Your task to perform on an android device: Go to Android settings Image 0: 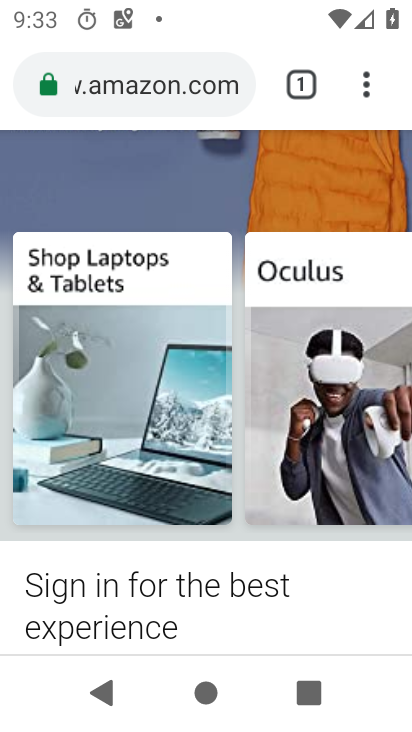
Step 0: drag from (206, 606) to (158, 0)
Your task to perform on an android device: Go to Android settings Image 1: 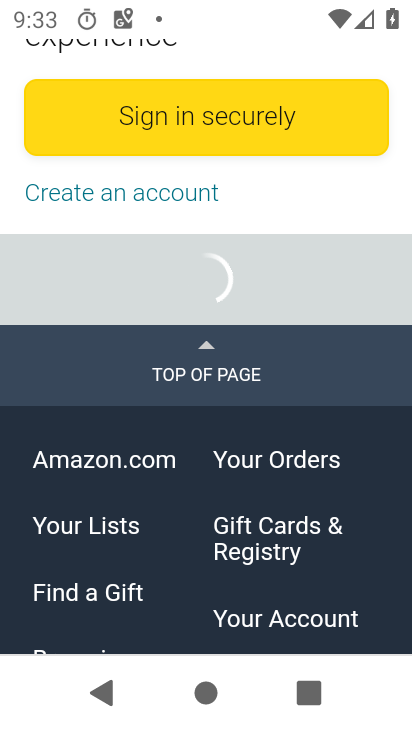
Step 1: press home button
Your task to perform on an android device: Go to Android settings Image 2: 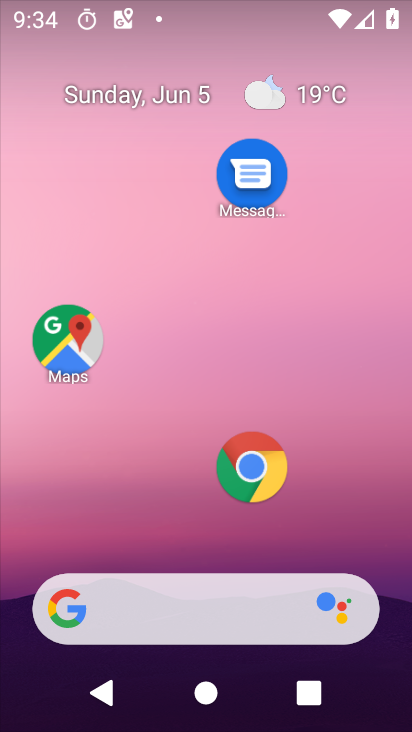
Step 2: drag from (198, 569) to (227, 390)
Your task to perform on an android device: Go to Android settings Image 3: 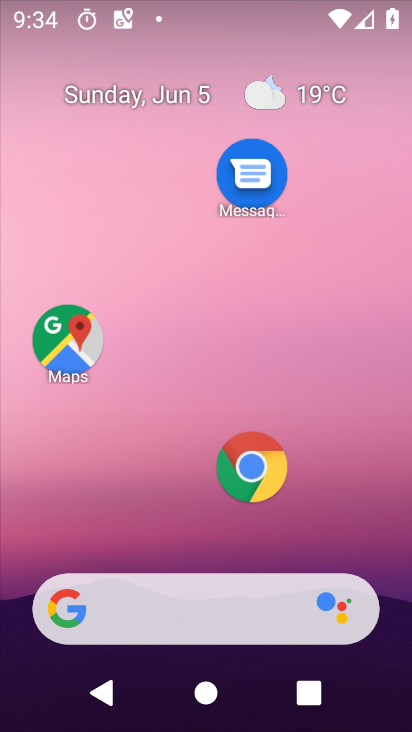
Step 3: drag from (194, 520) to (224, 85)
Your task to perform on an android device: Go to Android settings Image 4: 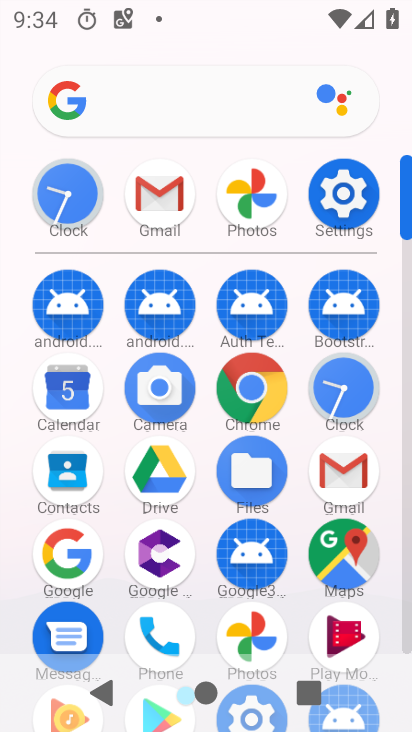
Step 4: click (356, 183)
Your task to perform on an android device: Go to Android settings Image 5: 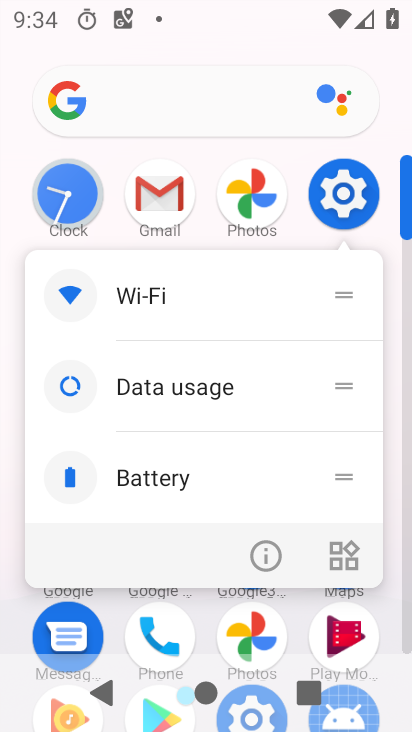
Step 5: click (277, 545)
Your task to perform on an android device: Go to Android settings Image 6: 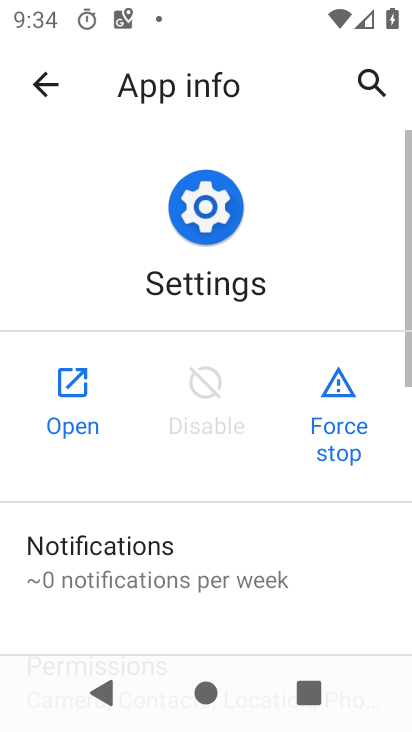
Step 6: click (90, 377)
Your task to perform on an android device: Go to Android settings Image 7: 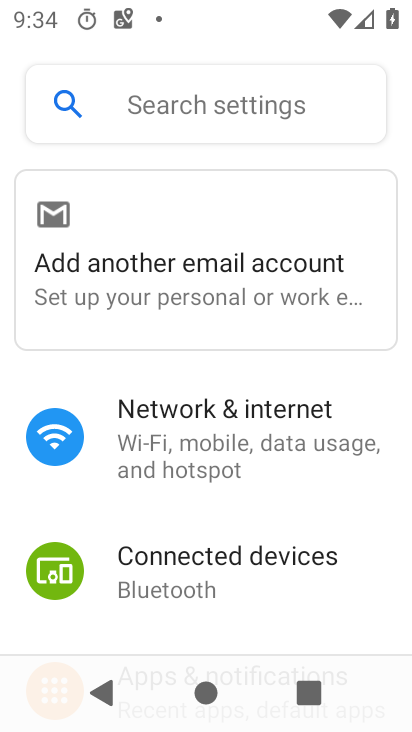
Step 7: drag from (193, 598) to (240, 94)
Your task to perform on an android device: Go to Android settings Image 8: 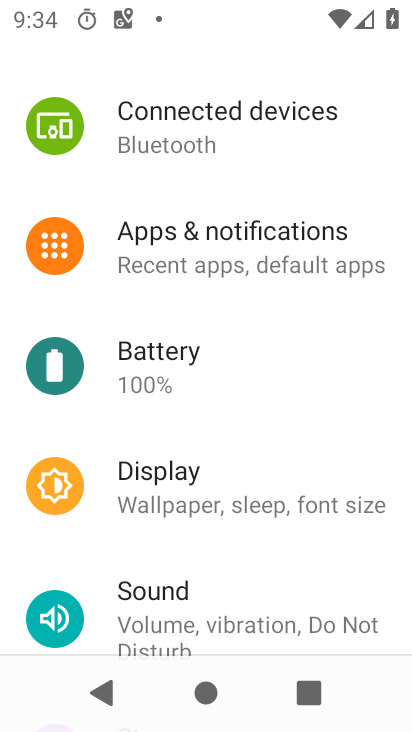
Step 8: drag from (238, 500) to (260, 195)
Your task to perform on an android device: Go to Android settings Image 9: 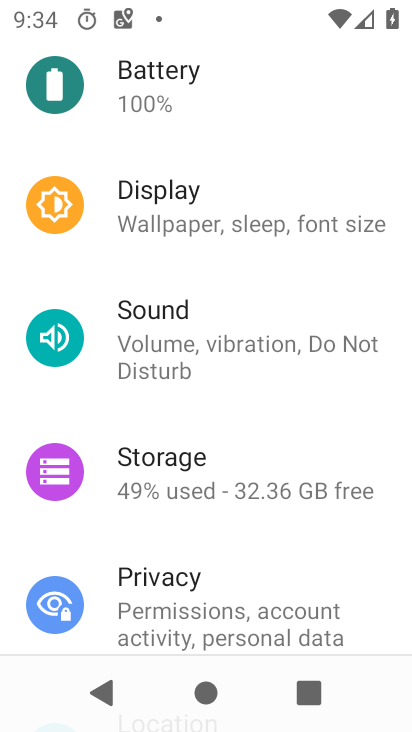
Step 9: drag from (273, 615) to (327, 77)
Your task to perform on an android device: Go to Android settings Image 10: 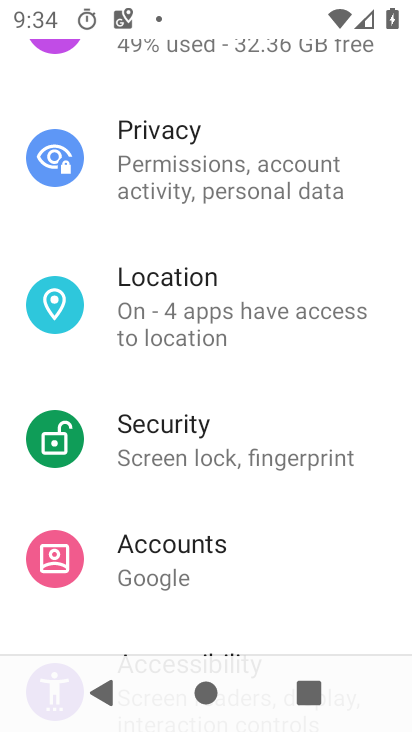
Step 10: drag from (240, 598) to (300, 14)
Your task to perform on an android device: Go to Android settings Image 11: 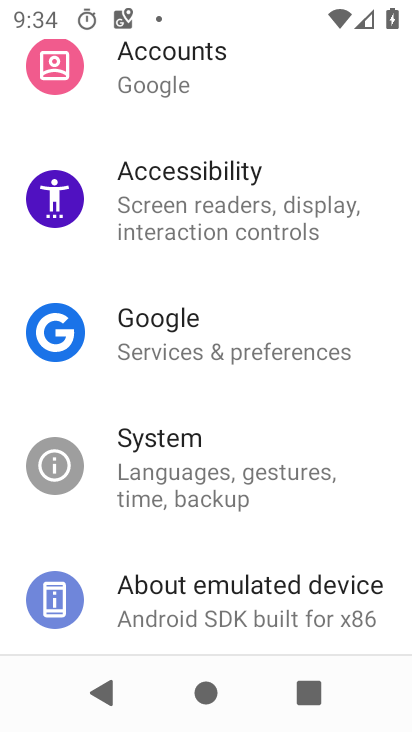
Step 11: click (192, 590)
Your task to perform on an android device: Go to Android settings Image 12: 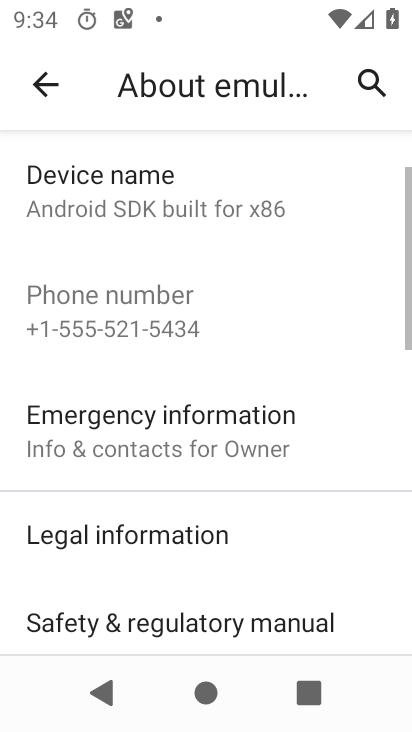
Step 12: drag from (192, 586) to (244, 247)
Your task to perform on an android device: Go to Android settings Image 13: 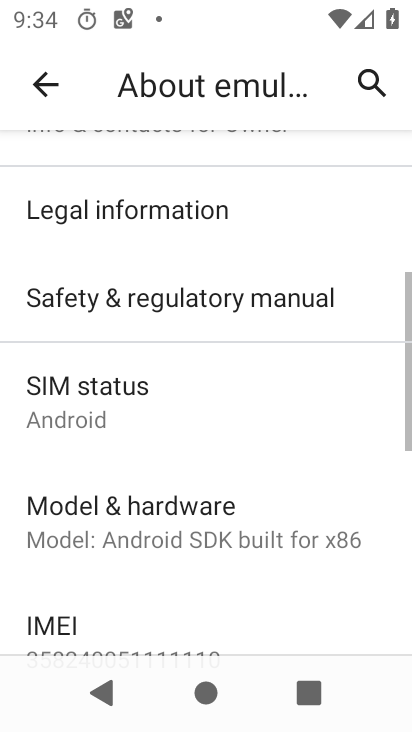
Step 13: drag from (160, 494) to (242, 219)
Your task to perform on an android device: Go to Android settings Image 14: 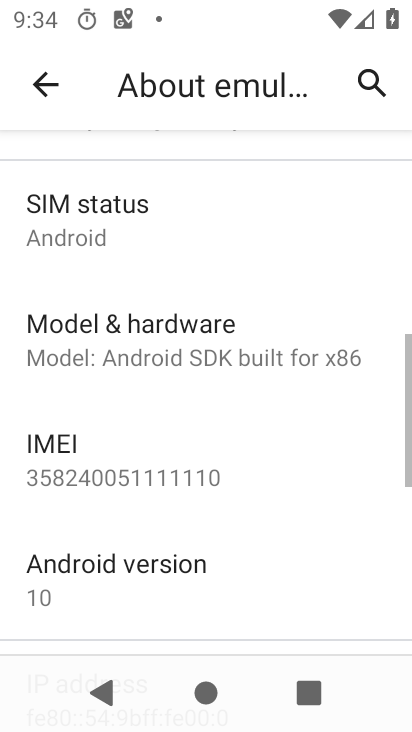
Step 14: click (157, 577)
Your task to perform on an android device: Go to Android settings Image 15: 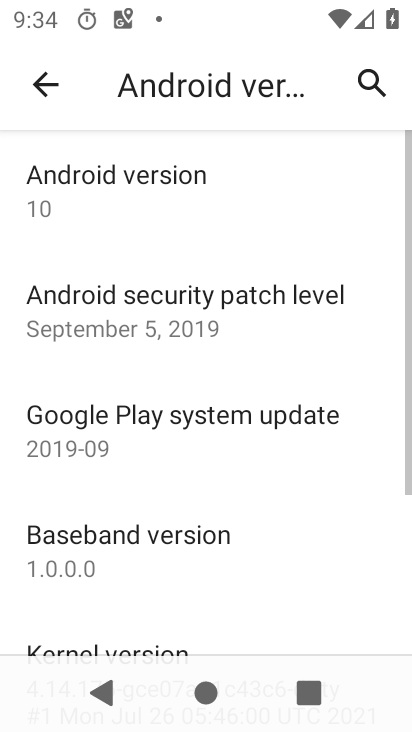
Step 15: drag from (159, 639) to (227, 198)
Your task to perform on an android device: Go to Android settings Image 16: 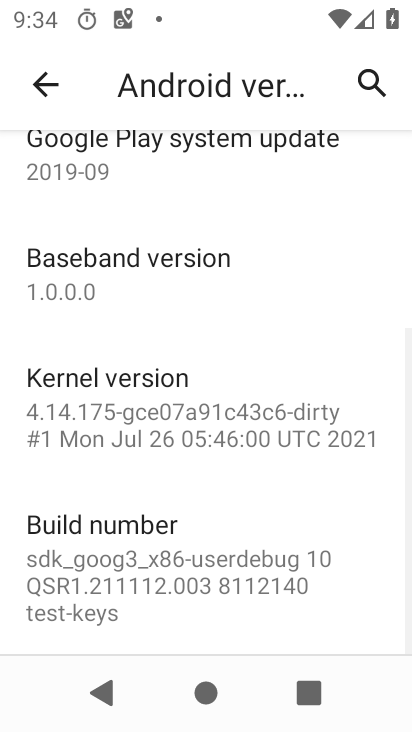
Step 16: drag from (213, 189) to (358, 714)
Your task to perform on an android device: Go to Android settings Image 17: 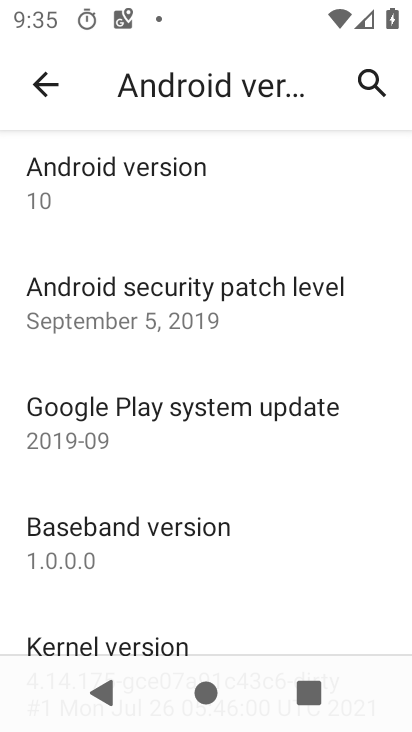
Step 17: click (137, 201)
Your task to perform on an android device: Go to Android settings Image 18: 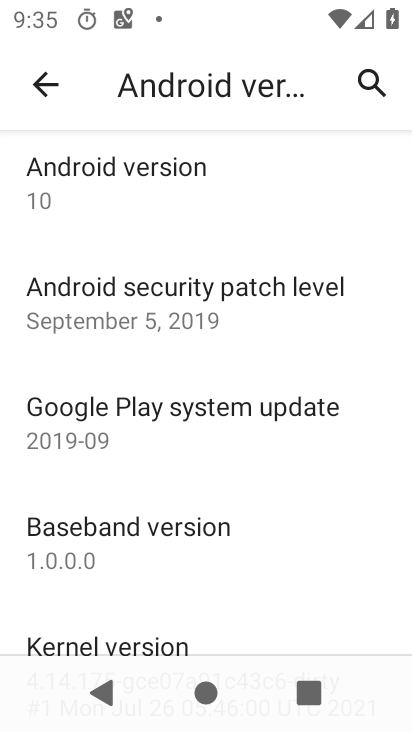
Step 18: task complete